Your task to perform on an android device: What's the weather going to be tomorrow? Image 0: 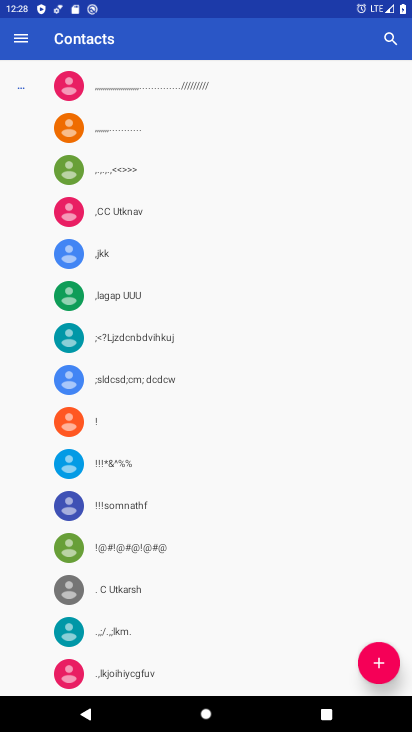
Step 0: press home button
Your task to perform on an android device: What's the weather going to be tomorrow? Image 1: 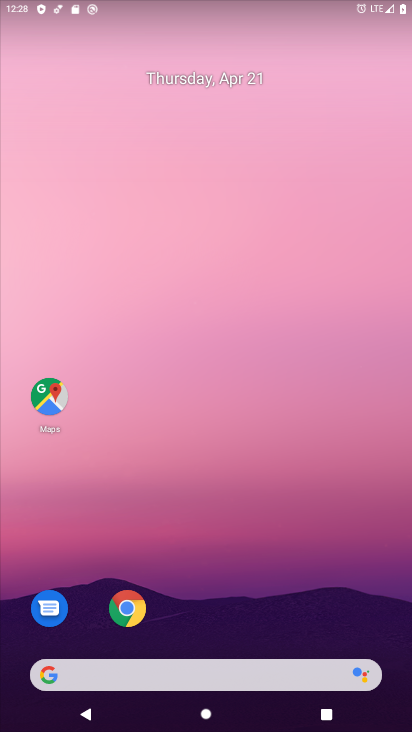
Step 1: drag from (202, 357) to (208, 44)
Your task to perform on an android device: What's the weather going to be tomorrow? Image 2: 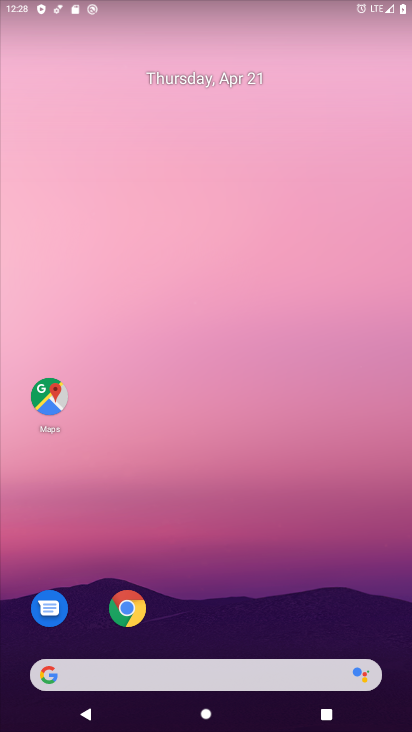
Step 2: drag from (208, 600) to (264, 89)
Your task to perform on an android device: What's the weather going to be tomorrow? Image 3: 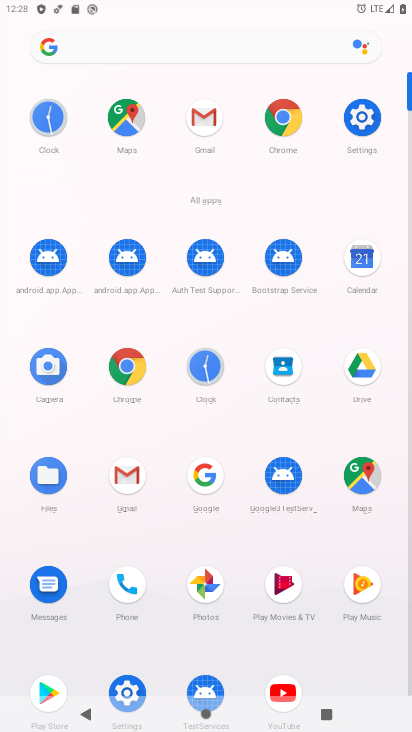
Step 3: click (205, 483)
Your task to perform on an android device: What's the weather going to be tomorrow? Image 4: 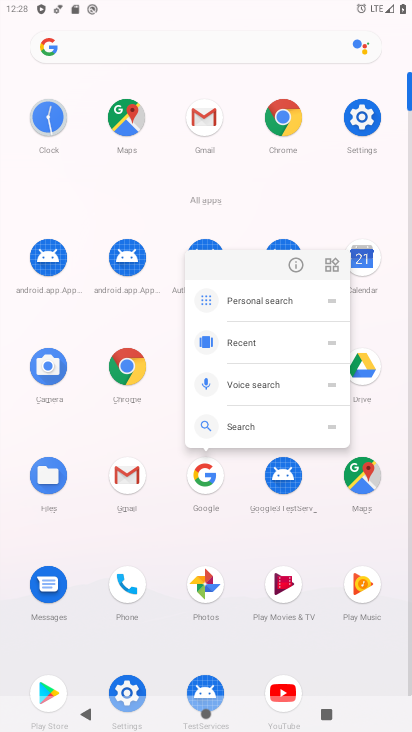
Step 4: click (222, 473)
Your task to perform on an android device: What's the weather going to be tomorrow? Image 5: 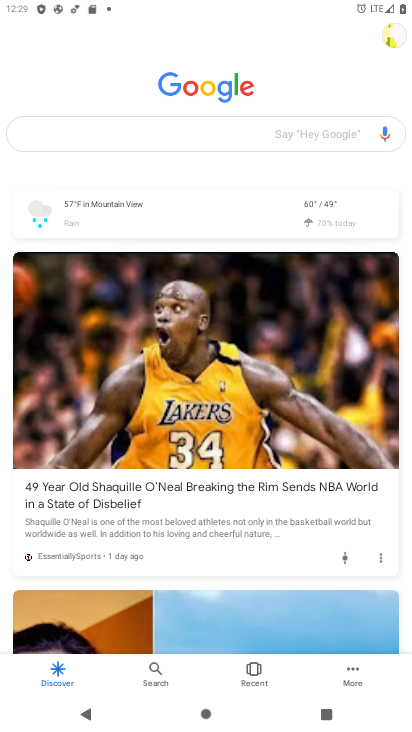
Step 5: click (174, 217)
Your task to perform on an android device: What's the weather going to be tomorrow? Image 6: 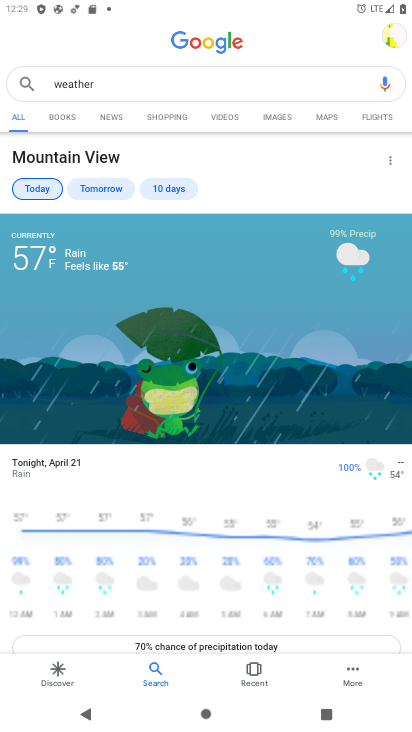
Step 6: click (96, 192)
Your task to perform on an android device: What's the weather going to be tomorrow? Image 7: 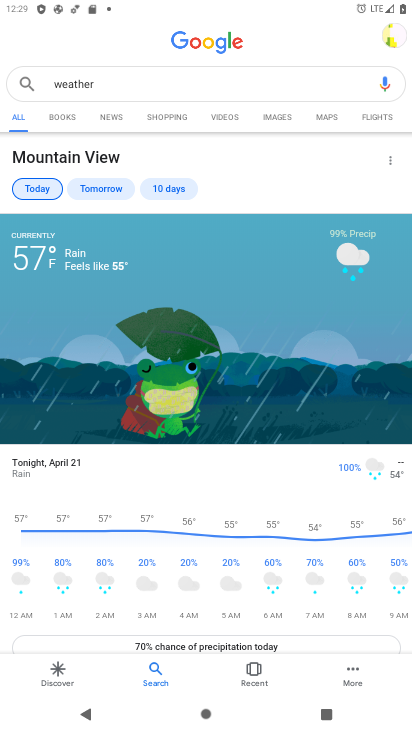
Step 7: click (83, 188)
Your task to perform on an android device: What's the weather going to be tomorrow? Image 8: 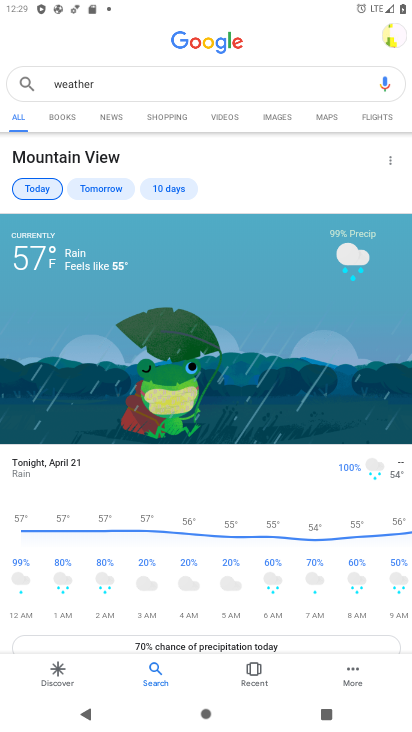
Step 8: click (104, 187)
Your task to perform on an android device: What's the weather going to be tomorrow? Image 9: 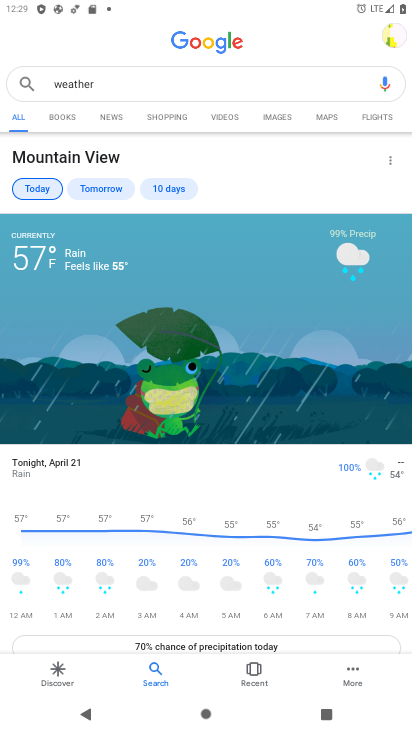
Step 9: click (104, 187)
Your task to perform on an android device: What's the weather going to be tomorrow? Image 10: 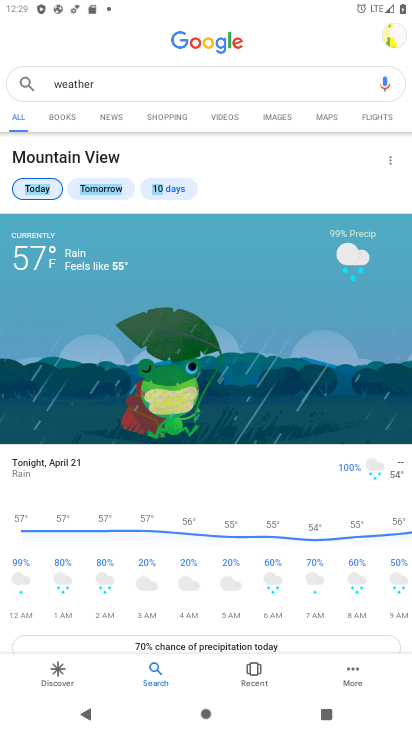
Step 10: click (104, 187)
Your task to perform on an android device: What's the weather going to be tomorrow? Image 11: 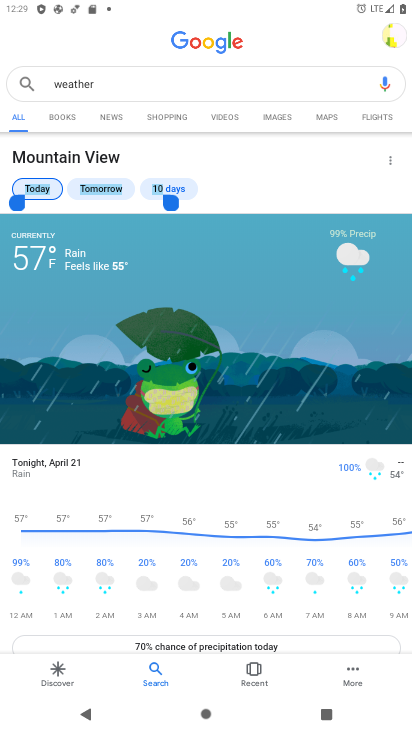
Step 11: click (104, 187)
Your task to perform on an android device: What's the weather going to be tomorrow? Image 12: 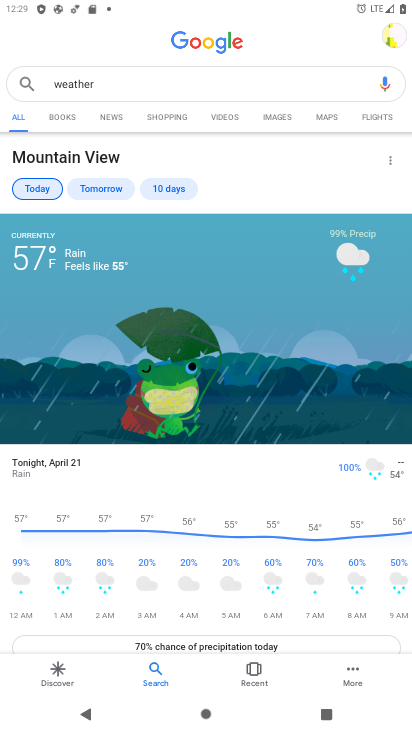
Step 12: click (104, 187)
Your task to perform on an android device: What's the weather going to be tomorrow? Image 13: 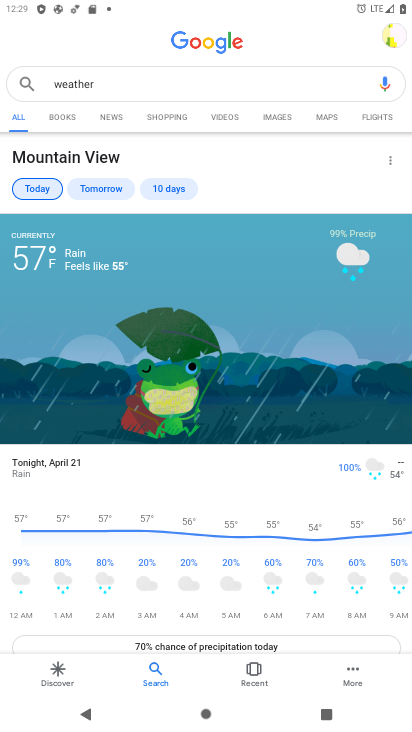
Step 13: click (100, 182)
Your task to perform on an android device: What's the weather going to be tomorrow? Image 14: 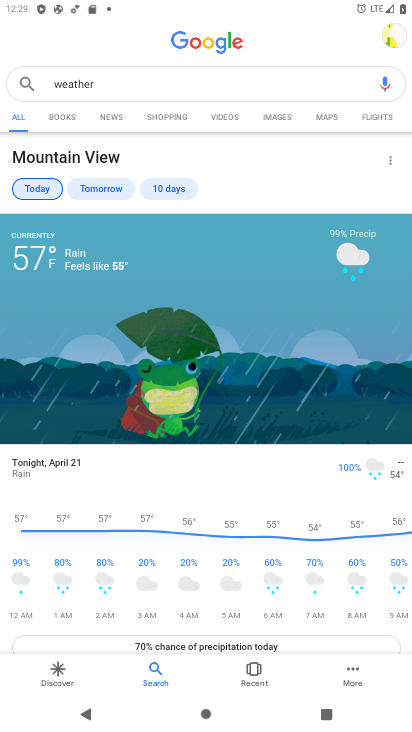
Step 14: drag from (222, 532) to (208, 466)
Your task to perform on an android device: What's the weather going to be tomorrow? Image 15: 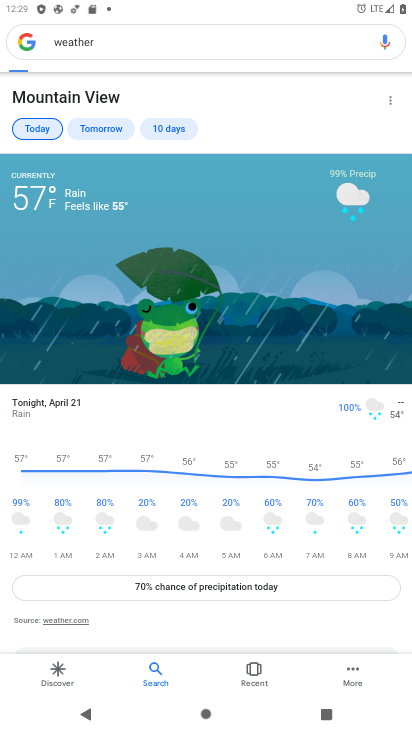
Step 15: click (163, 128)
Your task to perform on an android device: What's the weather going to be tomorrow? Image 16: 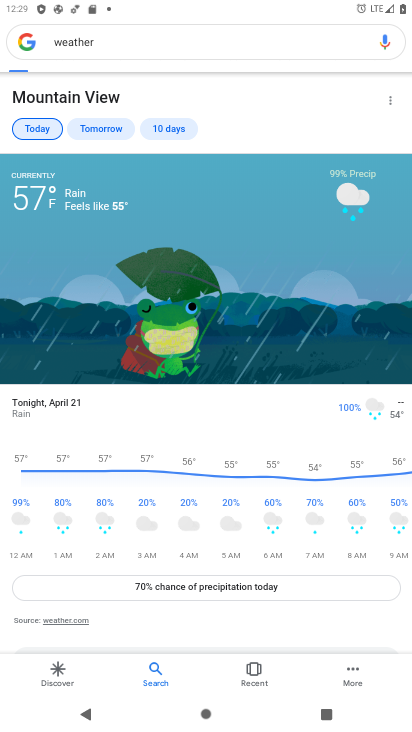
Step 16: click (115, 126)
Your task to perform on an android device: What's the weather going to be tomorrow? Image 17: 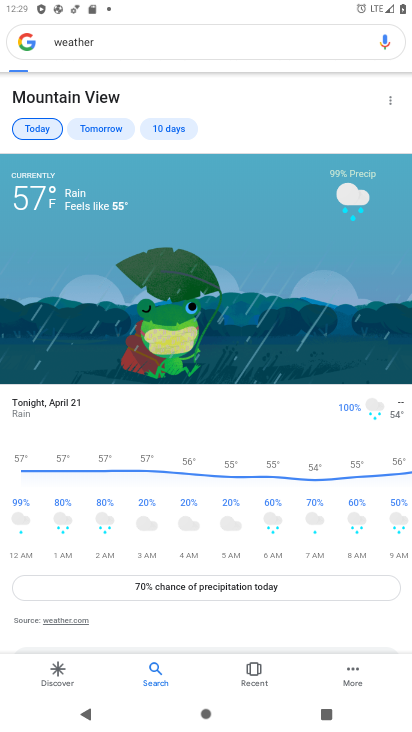
Step 17: task complete